Your task to perform on an android device: Open Google Chrome and open the bookmarks view Image 0: 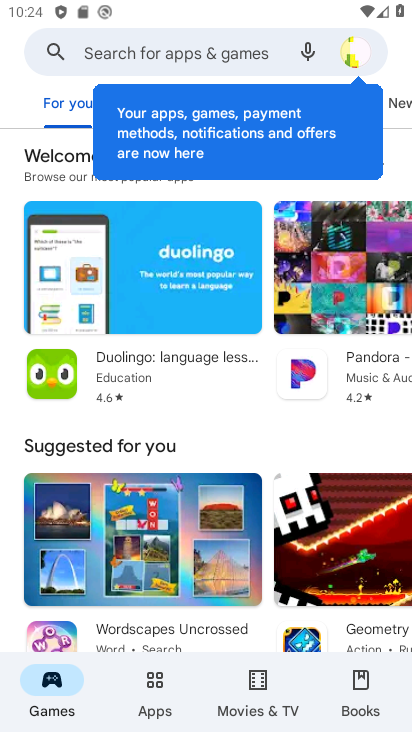
Step 0: press home button
Your task to perform on an android device: Open Google Chrome and open the bookmarks view Image 1: 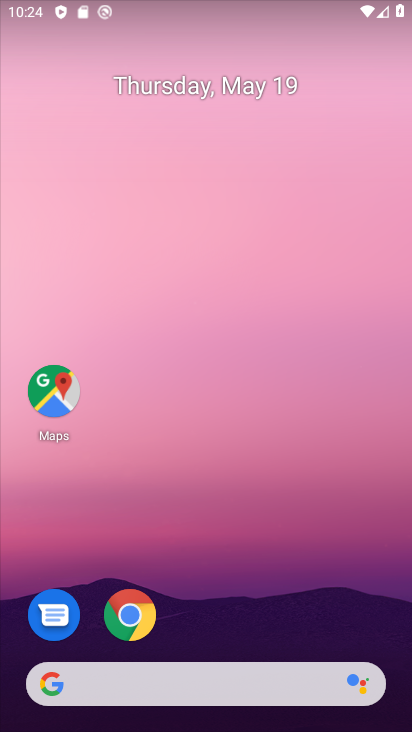
Step 1: click (144, 609)
Your task to perform on an android device: Open Google Chrome and open the bookmarks view Image 2: 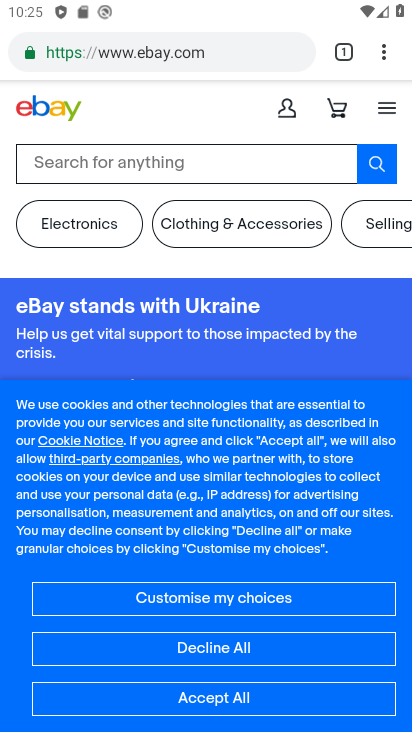
Step 2: click (387, 56)
Your task to perform on an android device: Open Google Chrome and open the bookmarks view Image 3: 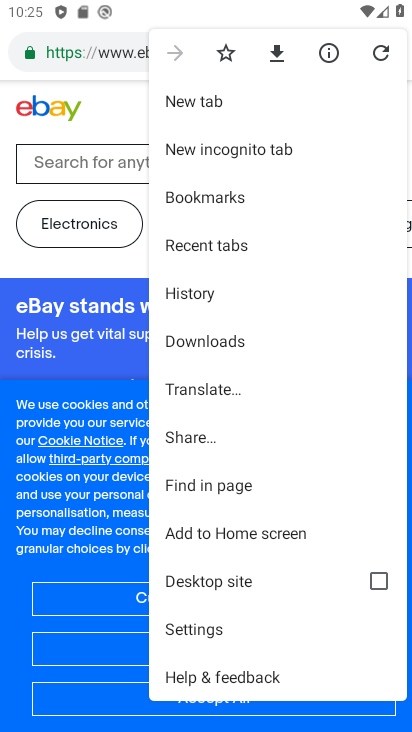
Step 3: click (200, 198)
Your task to perform on an android device: Open Google Chrome and open the bookmarks view Image 4: 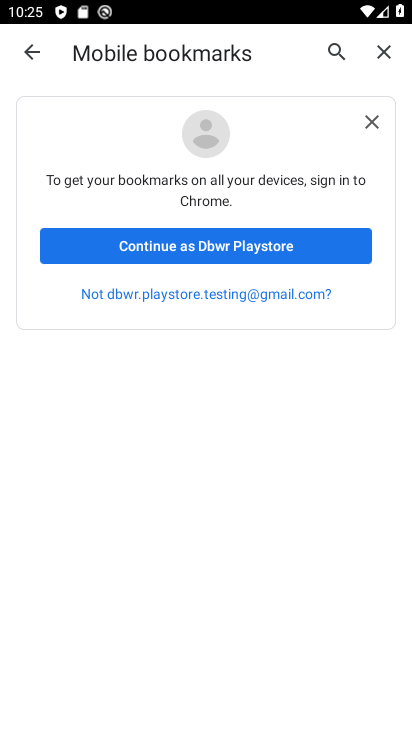
Step 4: click (201, 240)
Your task to perform on an android device: Open Google Chrome and open the bookmarks view Image 5: 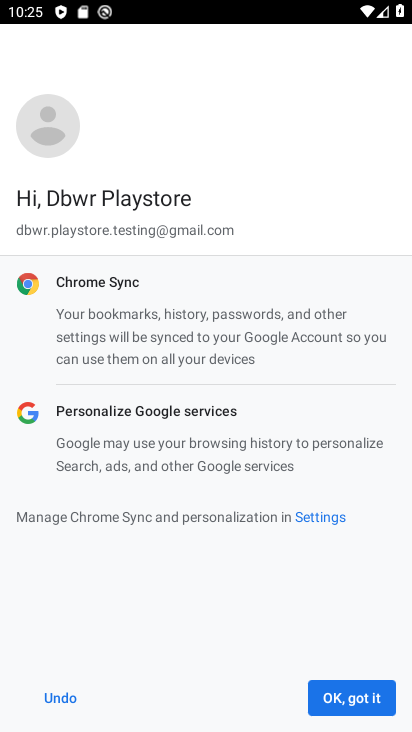
Step 5: click (349, 695)
Your task to perform on an android device: Open Google Chrome and open the bookmarks view Image 6: 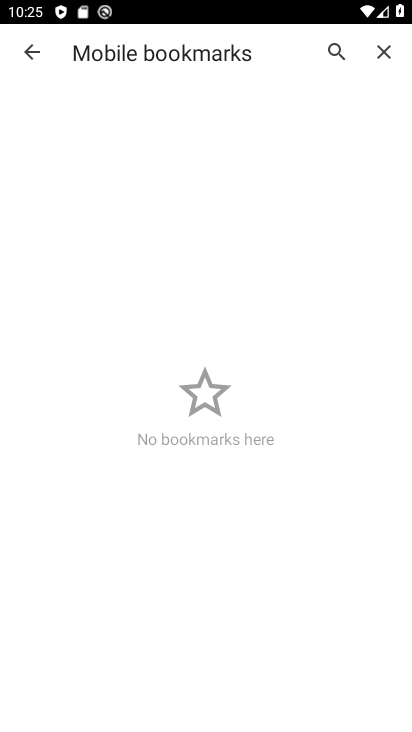
Step 6: task complete